Your task to perform on an android device: remove spam from my inbox in the gmail app Image 0: 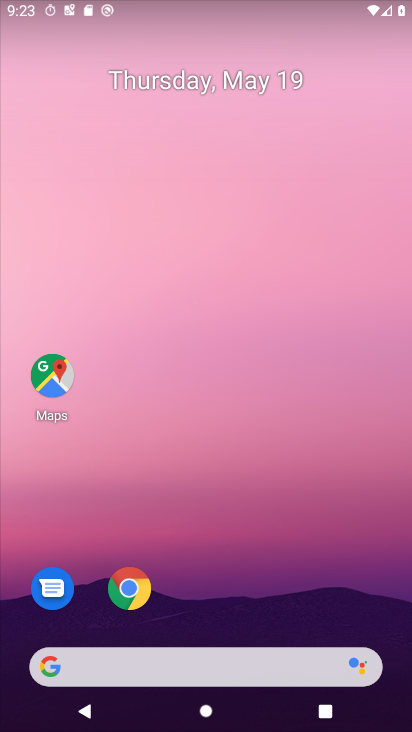
Step 0: drag from (210, 662) to (218, 189)
Your task to perform on an android device: remove spam from my inbox in the gmail app Image 1: 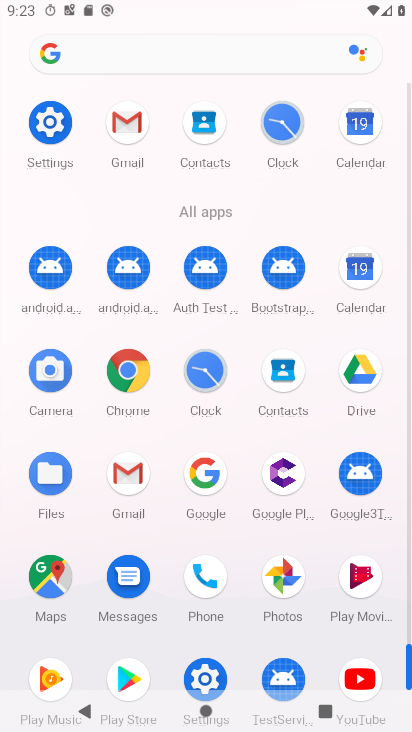
Step 1: click (129, 129)
Your task to perform on an android device: remove spam from my inbox in the gmail app Image 2: 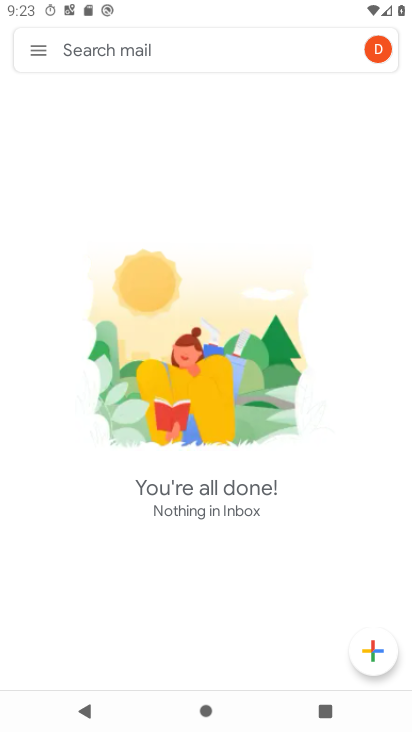
Step 2: click (35, 48)
Your task to perform on an android device: remove spam from my inbox in the gmail app Image 3: 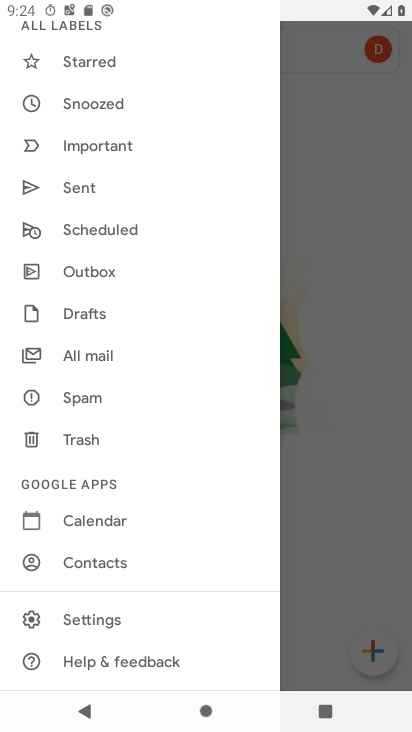
Step 3: click (84, 398)
Your task to perform on an android device: remove spam from my inbox in the gmail app Image 4: 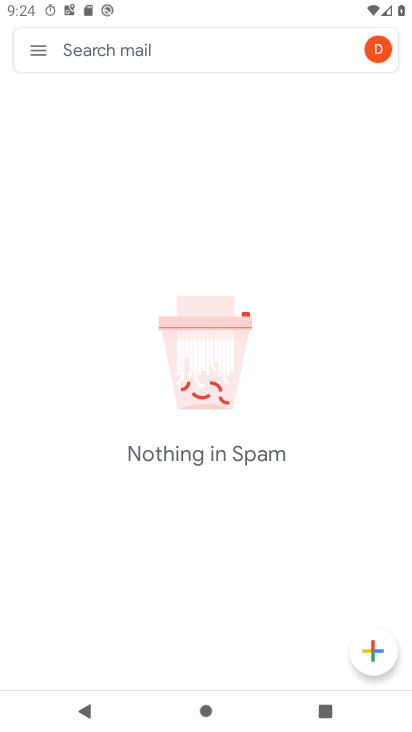
Step 4: task complete